Your task to perform on an android device: search for starred emails in the gmail app Image 0: 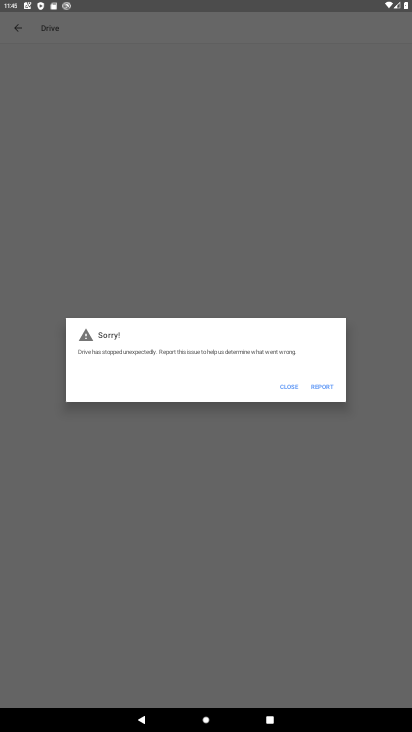
Step 0: press home button
Your task to perform on an android device: search for starred emails in the gmail app Image 1: 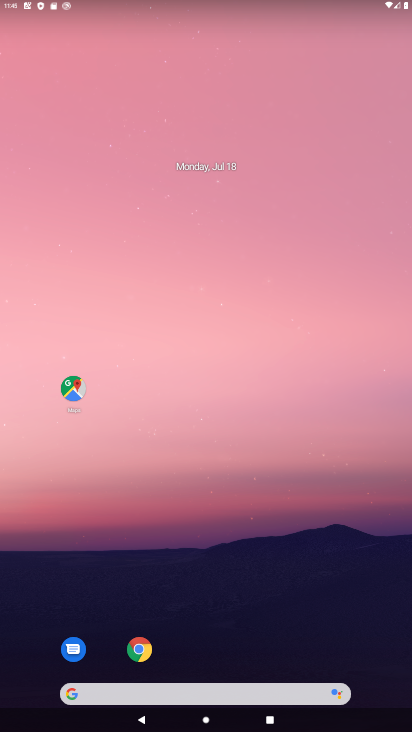
Step 1: drag from (384, 525) to (369, 61)
Your task to perform on an android device: search for starred emails in the gmail app Image 2: 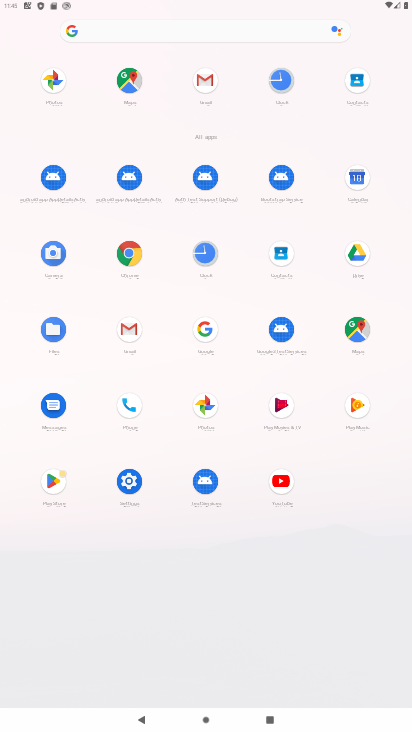
Step 2: click (128, 329)
Your task to perform on an android device: search for starred emails in the gmail app Image 3: 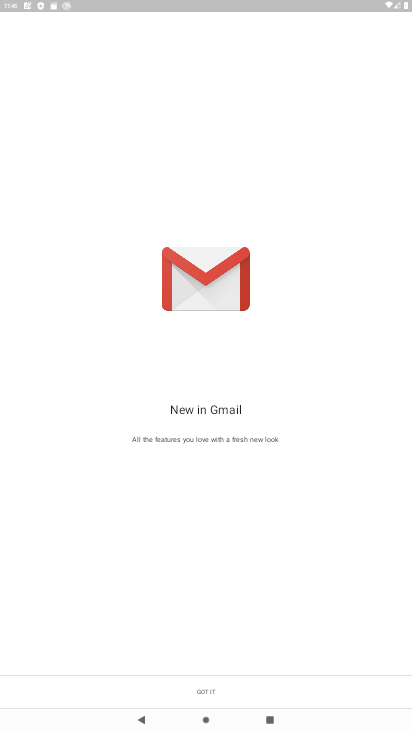
Step 3: click (206, 682)
Your task to perform on an android device: search for starred emails in the gmail app Image 4: 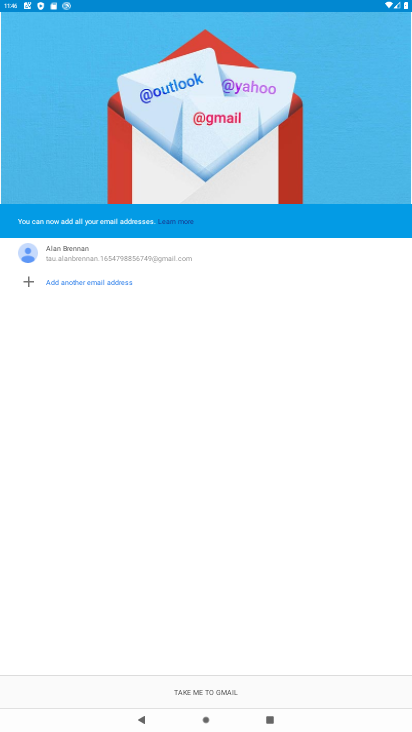
Step 4: click (200, 695)
Your task to perform on an android device: search for starred emails in the gmail app Image 5: 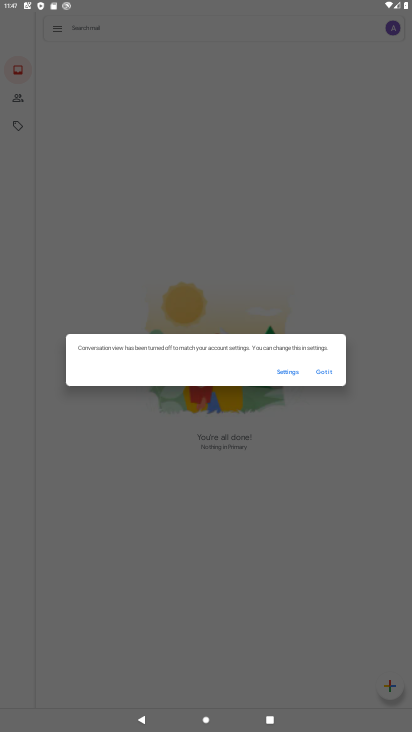
Step 5: click (321, 376)
Your task to perform on an android device: search for starred emails in the gmail app Image 6: 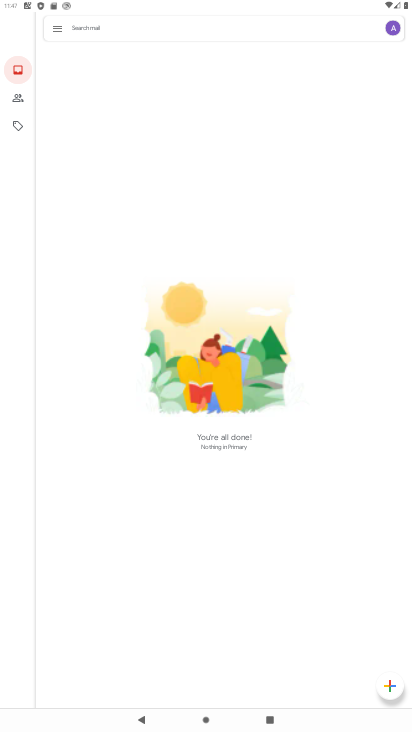
Step 6: click (57, 28)
Your task to perform on an android device: search for starred emails in the gmail app Image 7: 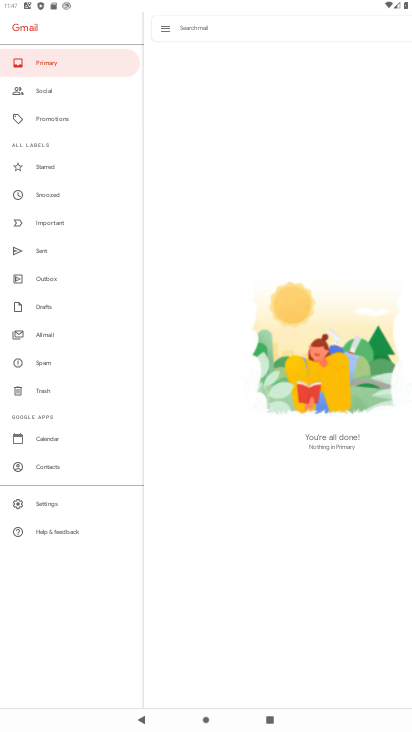
Step 7: click (42, 164)
Your task to perform on an android device: search for starred emails in the gmail app Image 8: 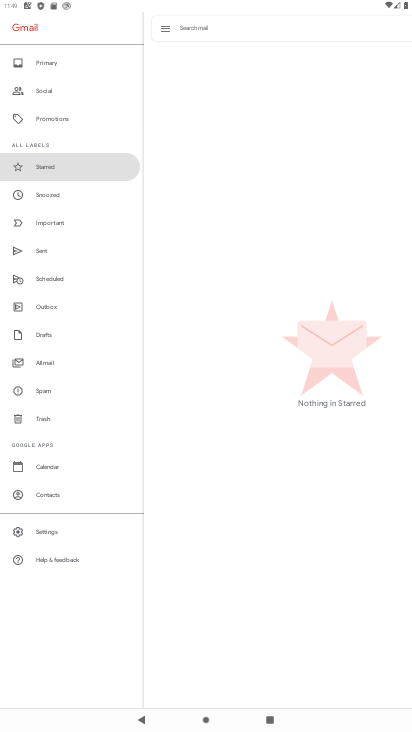
Step 8: task complete